Your task to perform on an android device: delete location history Image 0: 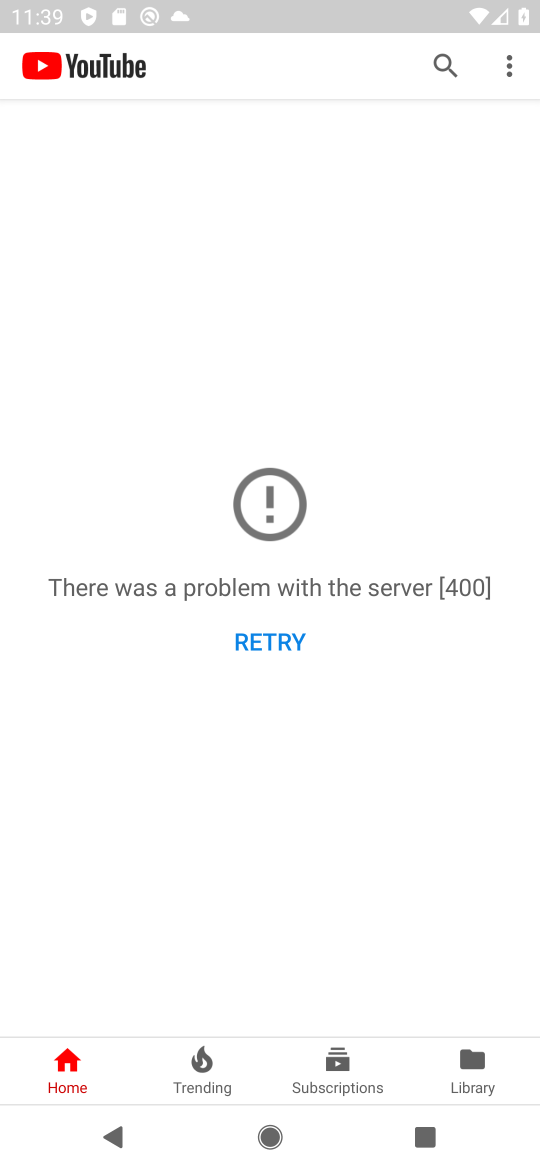
Step 0: press home button
Your task to perform on an android device: delete location history Image 1: 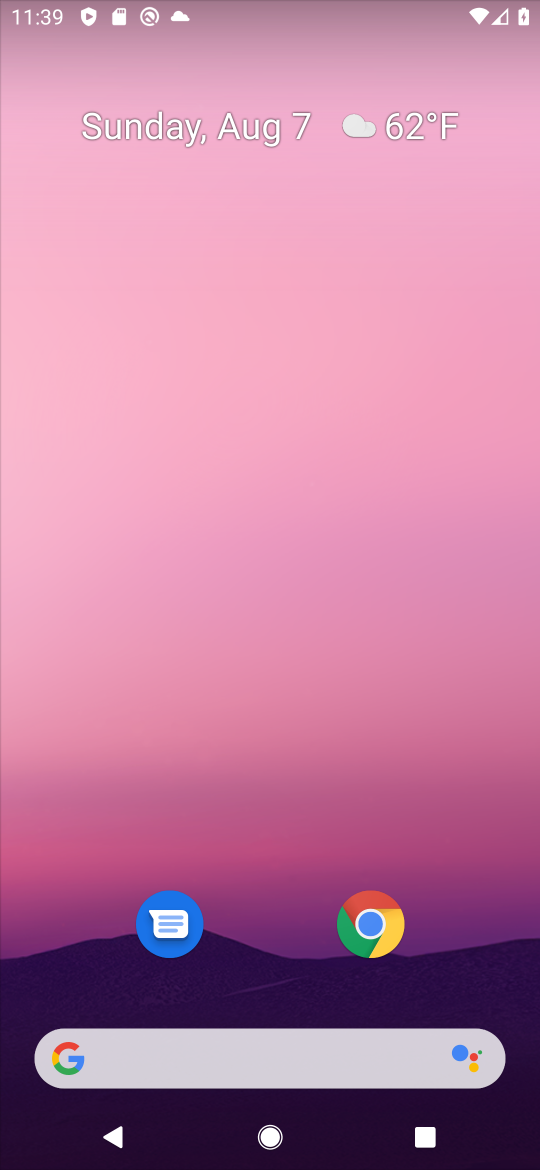
Step 1: drag from (280, 1021) to (216, 251)
Your task to perform on an android device: delete location history Image 2: 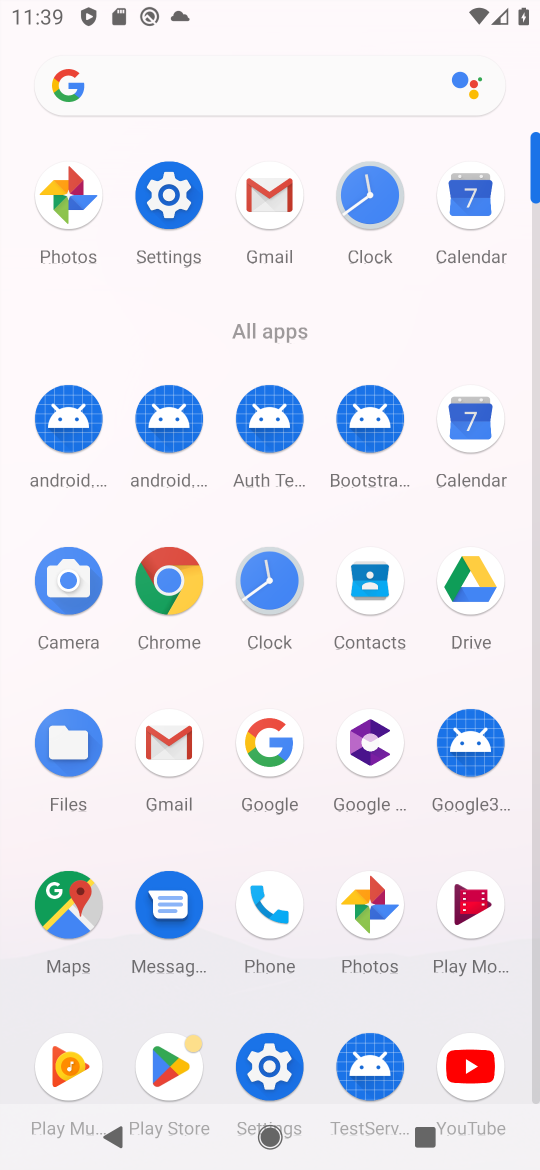
Step 2: click (262, 1075)
Your task to perform on an android device: delete location history Image 3: 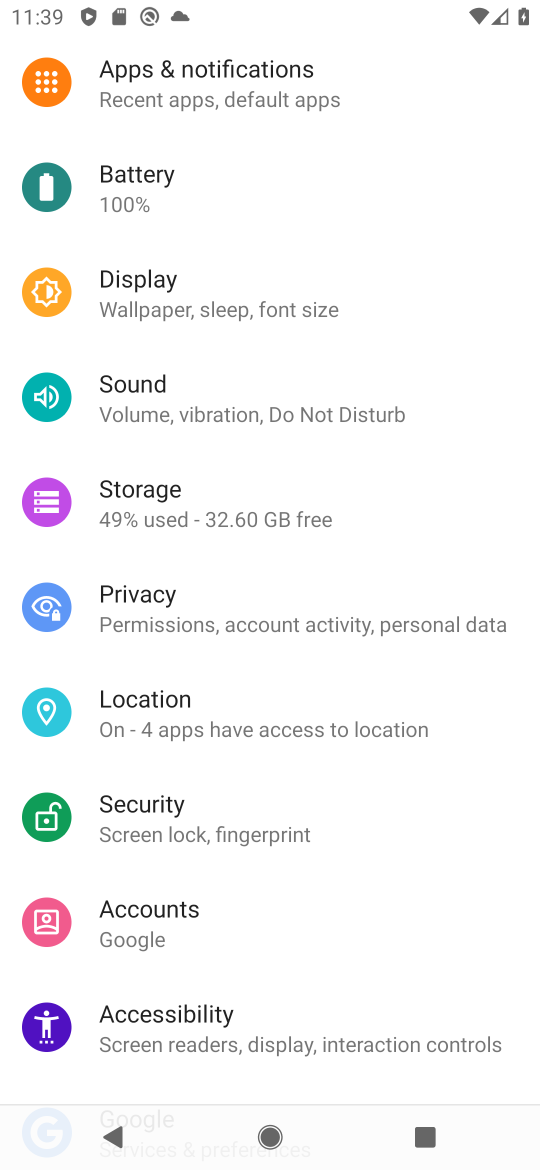
Step 3: click (183, 715)
Your task to perform on an android device: delete location history Image 4: 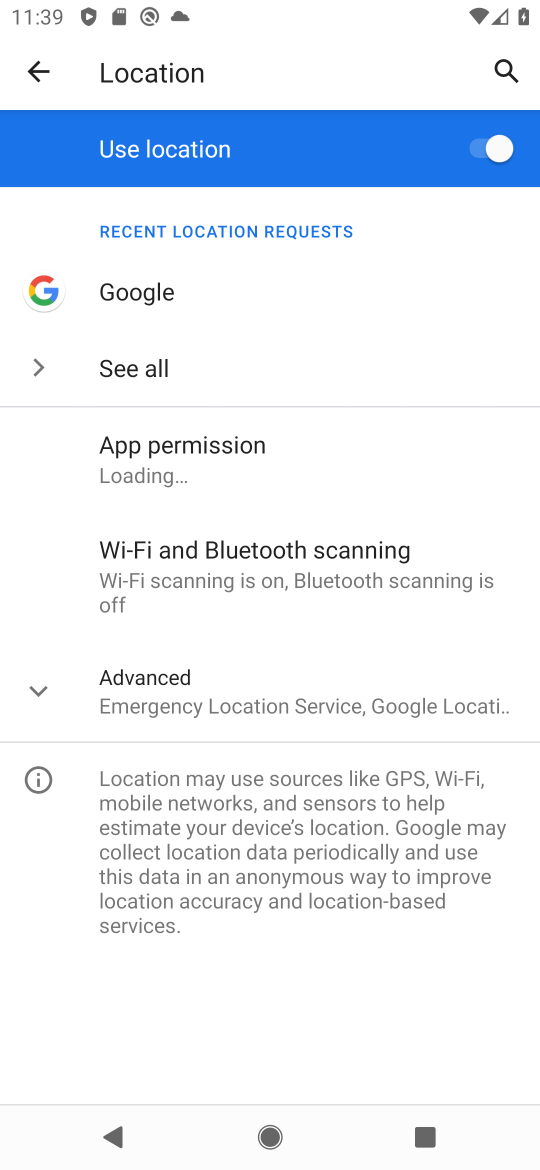
Step 4: click (116, 689)
Your task to perform on an android device: delete location history Image 5: 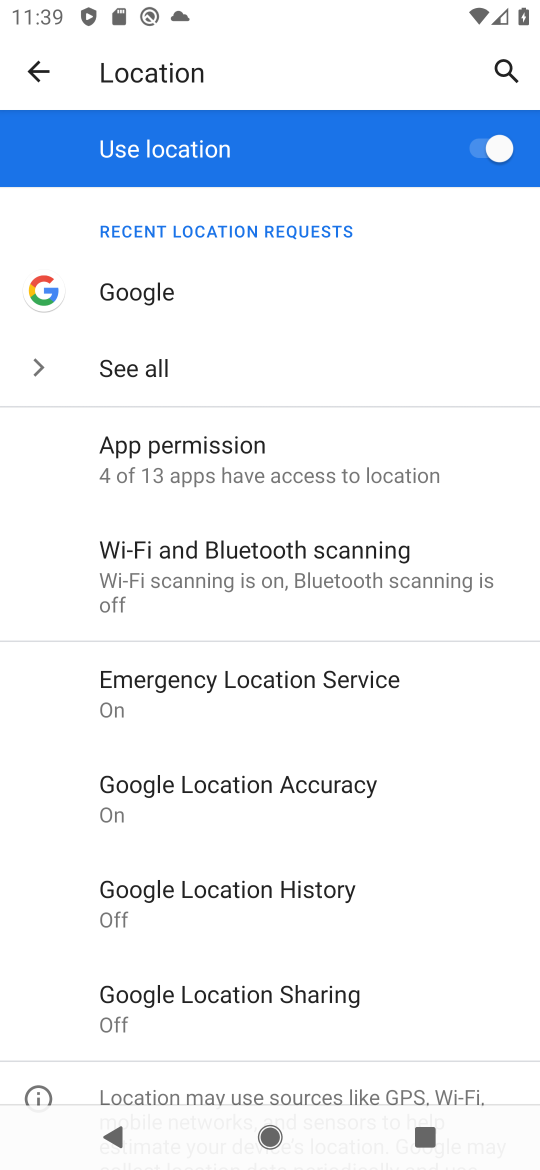
Step 5: click (232, 892)
Your task to perform on an android device: delete location history Image 6: 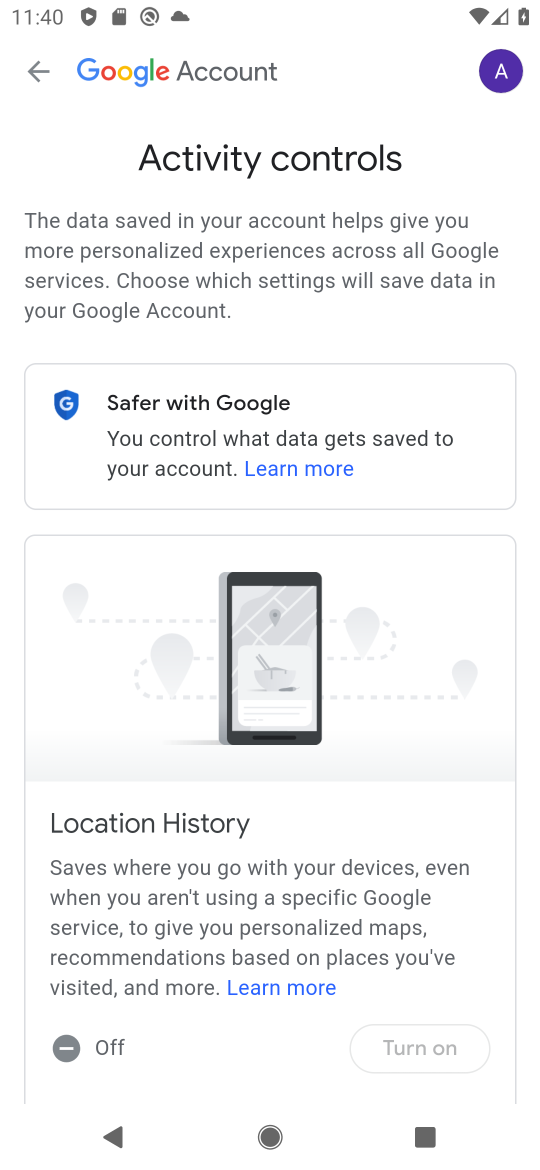
Step 6: drag from (238, 1029) to (238, 268)
Your task to perform on an android device: delete location history Image 7: 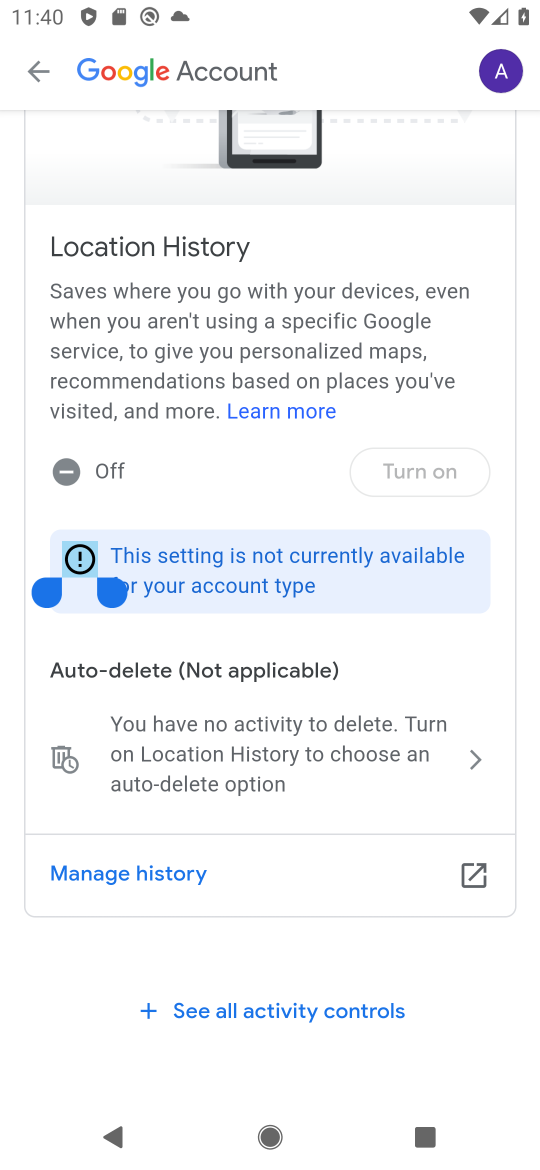
Step 7: click (252, 746)
Your task to perform on an android device: delete location history Image 8: 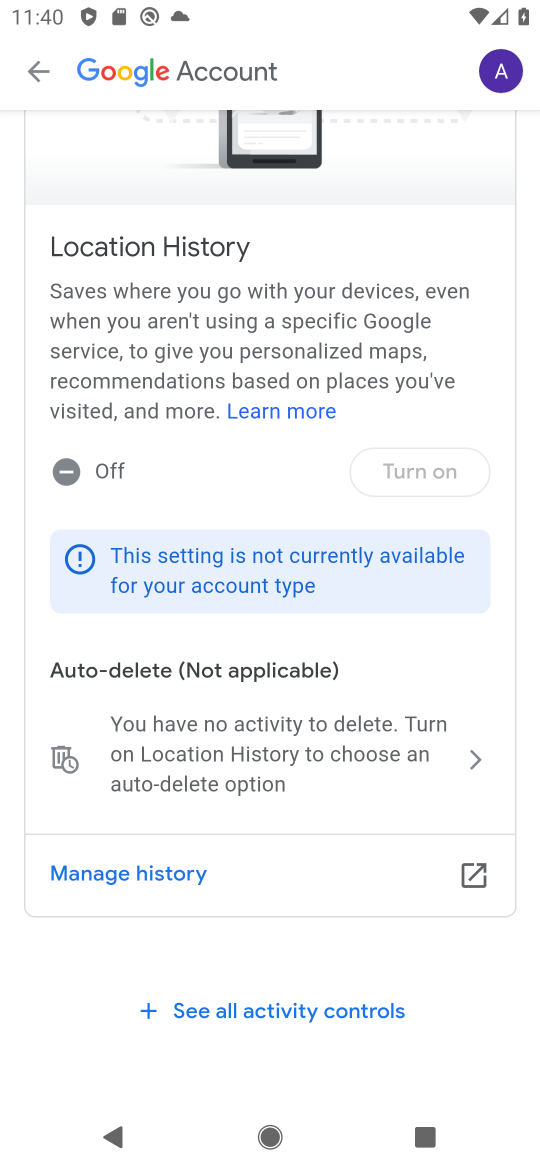
Step 8: task complete